Your task to perform on an android device: Go to Maps Image 0: 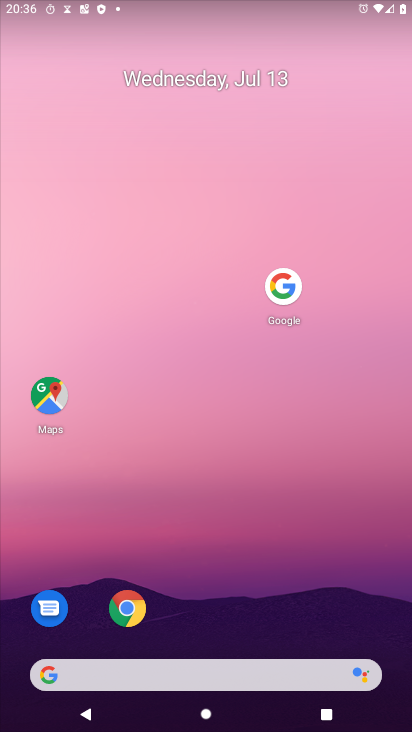
Step 0: drag from (201, 646) to (214, 100)
Your task to perform on an android device: Go to Maps Image 1: 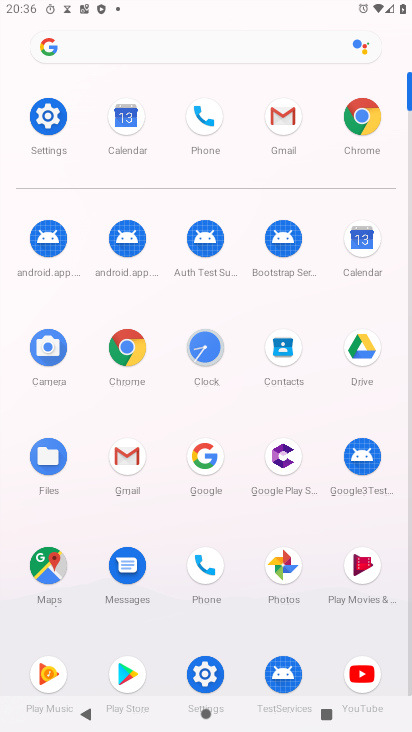
Step 1: click (47, 575)
Your task to perform on an android device: Go to Maps Image 2: 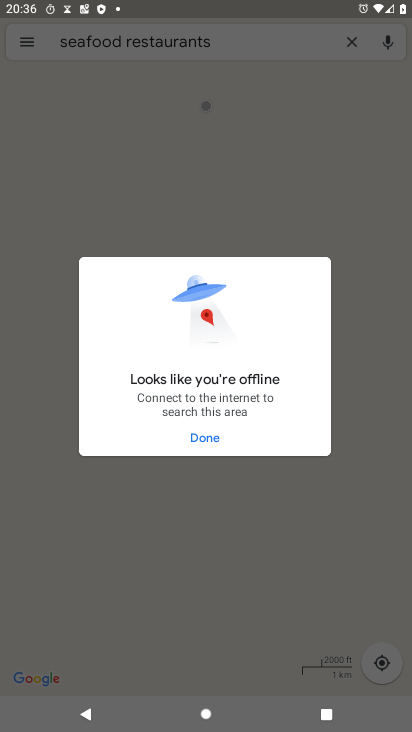
Step 2: click (202, 440)
Your task to perform on an android device: Go to Maps Image 3: 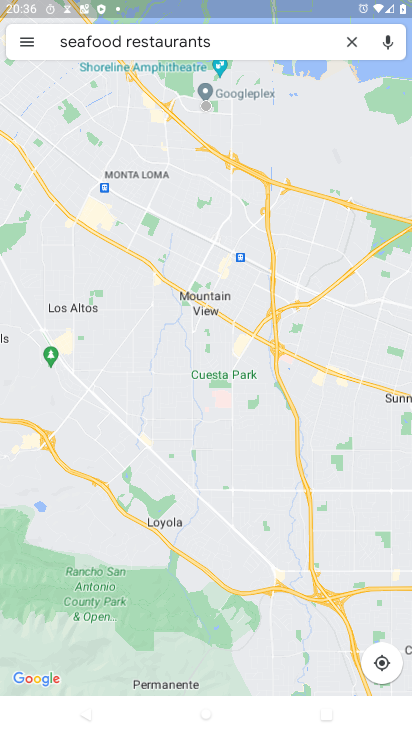
Step 3: task complete